Your task to perform on an android device: make emails show in primary in the gmail app Image 0: 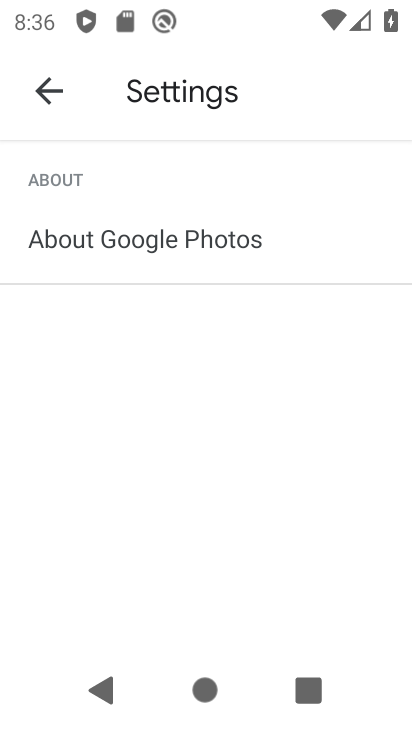
Step 0: drag from (379, 485) to (378, 427)
Your task to perform on an android device: make emails show in primary in the gmail app Image 1: 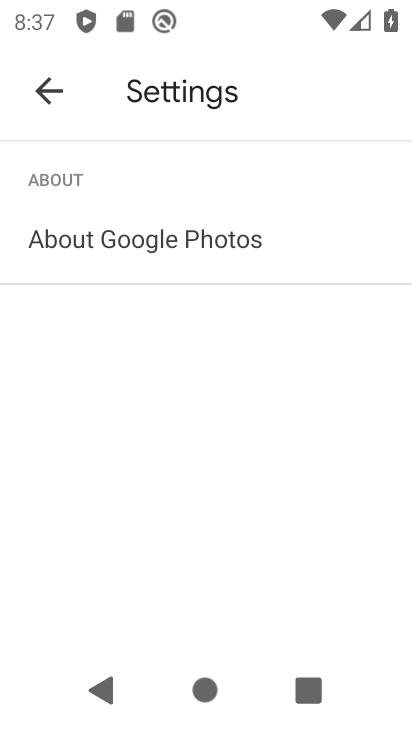
Step 1: press home button
Your task to perform on an android device: make emails show in primary in the gmail app Image 2: 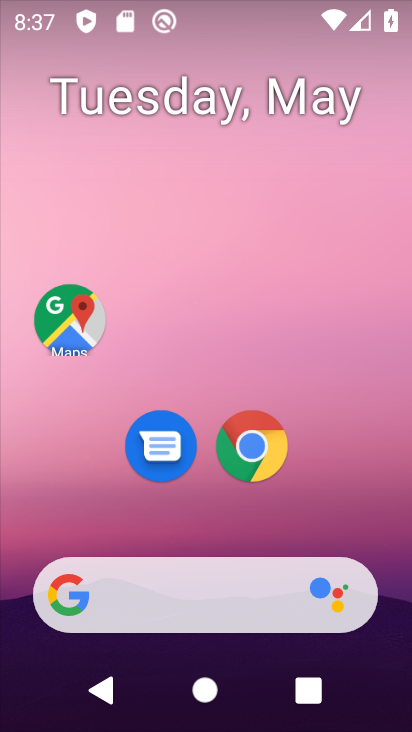
Step 2: drag from (347, 534) to (392, 47)
Your task to perform on an android device: make emails show in primary in the gmail app Image 3: 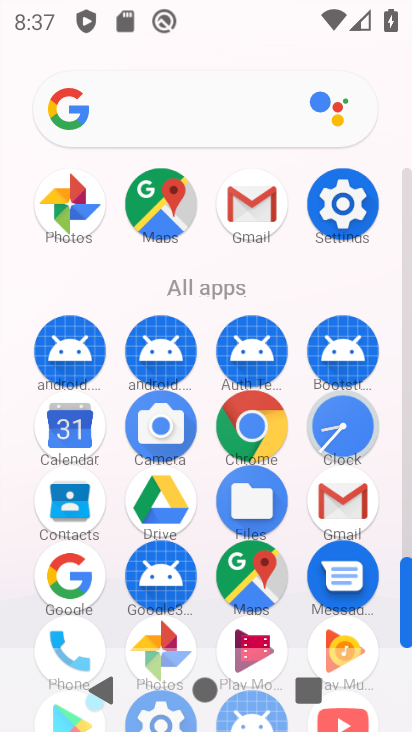
Step 3: click (249, 195)
Your task to perform on an android device: make emails show in primary in the gmail app Image 4: 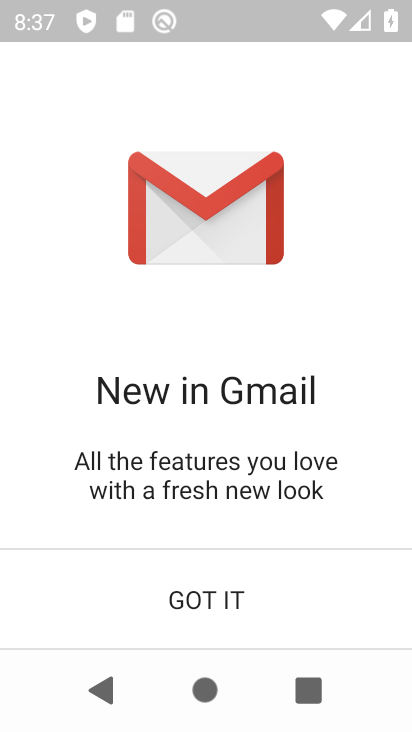
Step 4: click (221, 595)
Your task to perform on an android device: make emails show in primary in the gmail app Image 5: 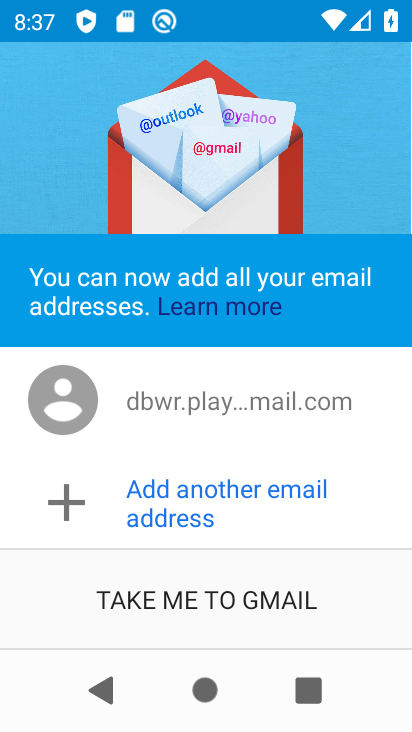
Step 5: click (221, 595)
Your task to perform on an android device: make emails show in primary in the gmail app Image 6: 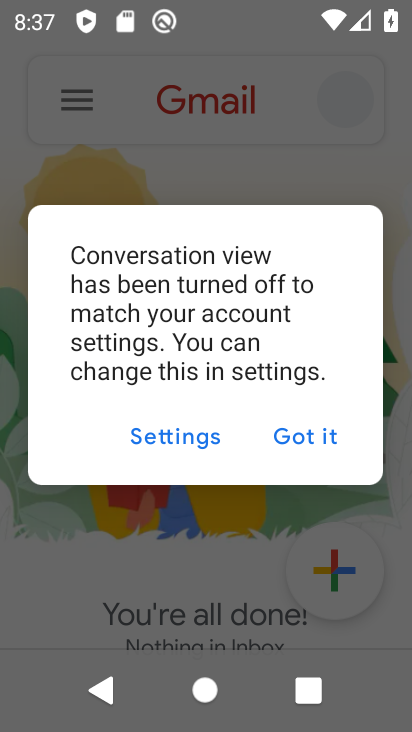
Step 6: click (279, 449)
Your task to perform on an android device: make emails show in primary in the gmail app Image 7: 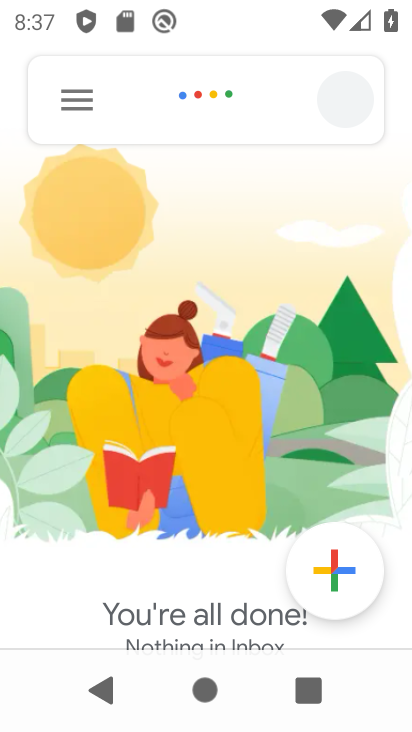
Step 7: click (75, 86)
Your task to perform on an android device: make emails show in primary in the gmail app Image 8: 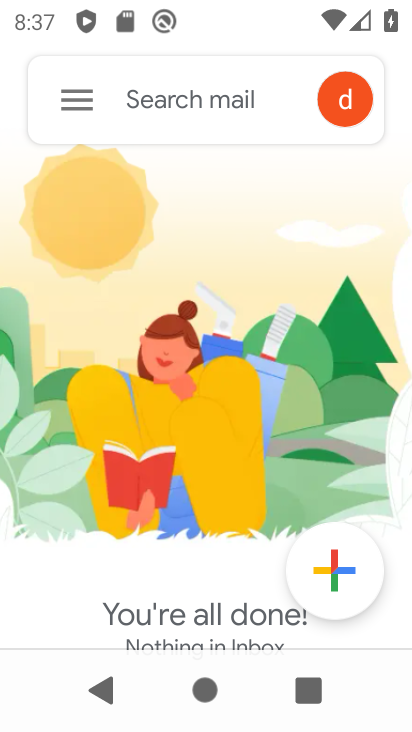
Step 8: click (72, 92)
Your task to perform on an android device: make emails show in primary in the gmail app Image 9: 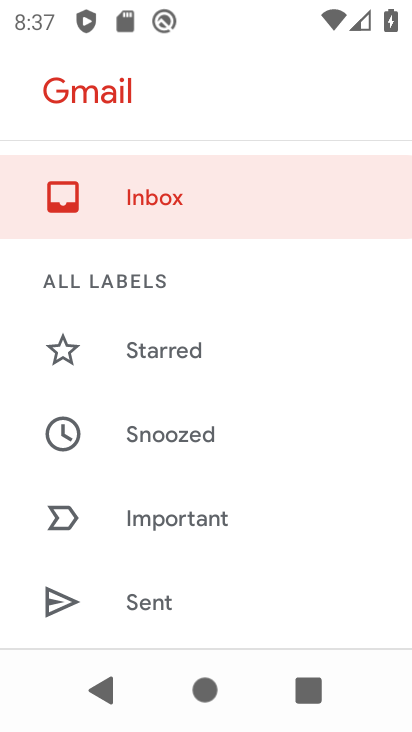
Step 9: drag from (184, 527) to (273, 5)
Your task to perform on an android device: make emails show in primary in the gmail app Image 10: 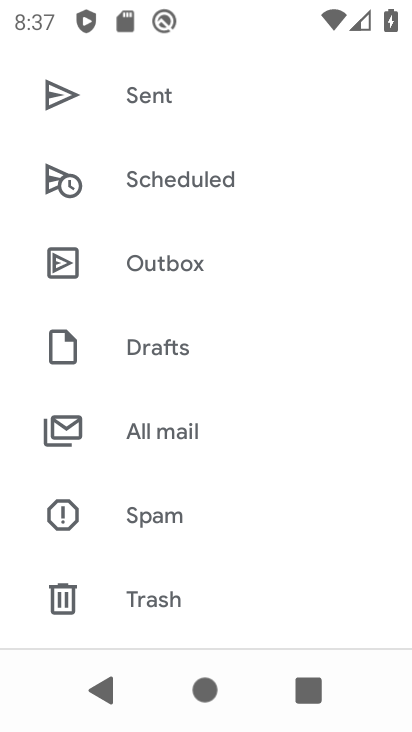
Step 10: drag from (181, 453) to (302, 4)
Your task to perform on an android device: make emails show in primary in the gmail app Image 11: 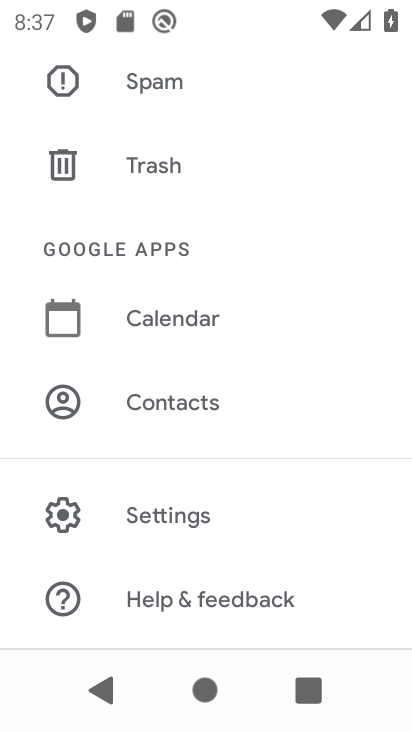
Step 11: click (181, 524)
Your task to perform on an android device: make emails show in primary in the gmail app Image 12: 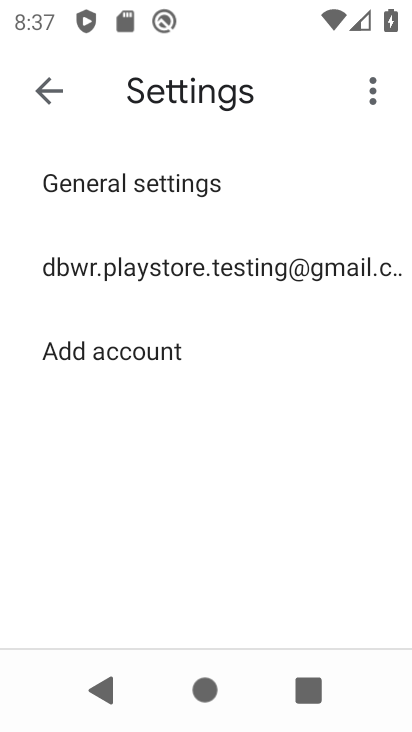
Step 12: click (97, 265)
Your task to perform on an android device: make emails show in primary in the gmail app Image 13: 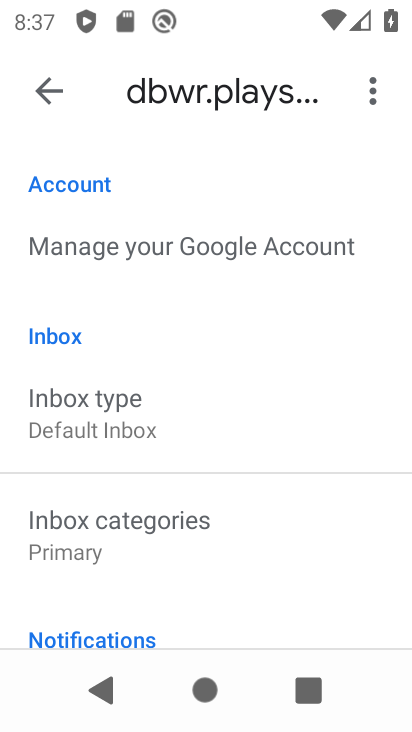
Step 13: task complete